Your task to perform on an android device: toggle airplane mode Image 0: 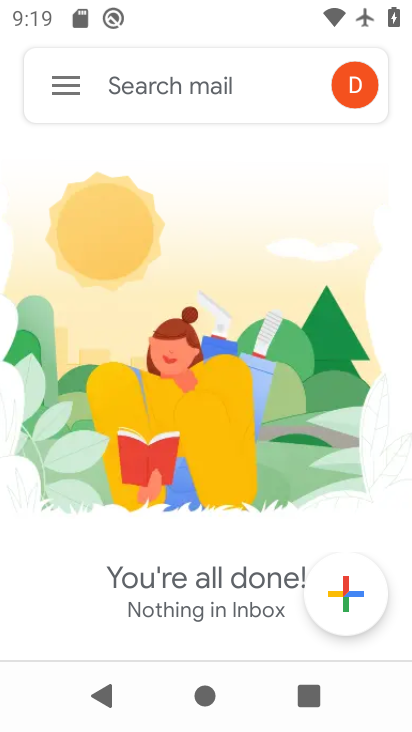
Step 0: press home button
Your task to perform on an android device: toggle airplane mode Image 1: 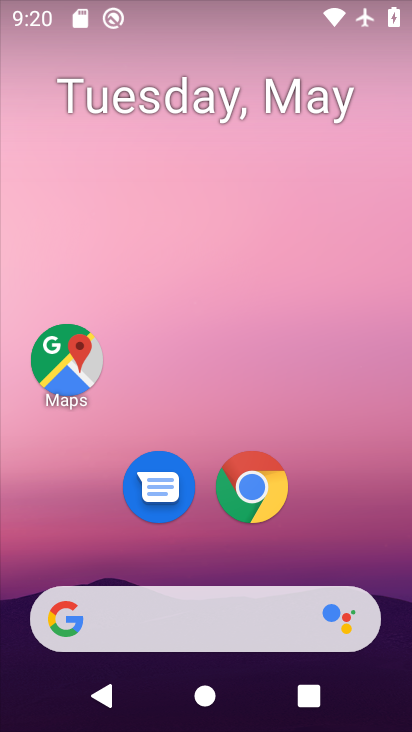
Step 1: drag from (263, 3) to (219, 499)
Your task to perform on an android device: toggle airplane mode Image 2: 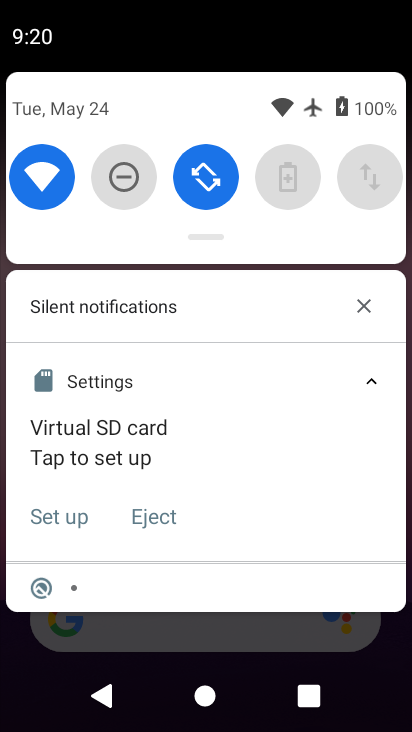
Step 2: drag from (201, 220) to (156, 639)
Your task to perform on an android device: toggle airplane mode Image 3: 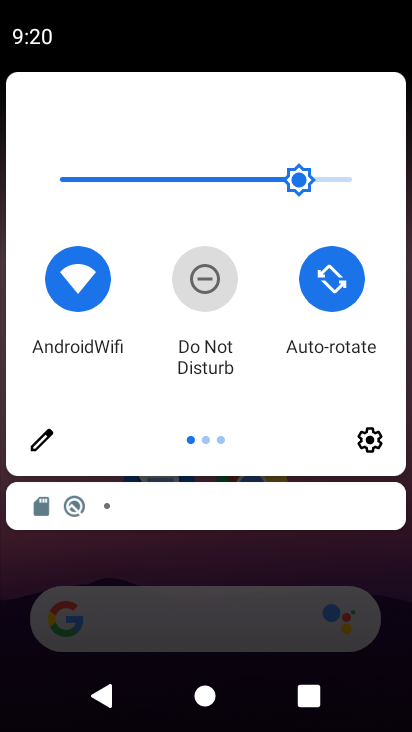
Step 3: drag from (331, 383) to (64, 391)
Your task to perform on an android device: toggle airplane mode Image 4: 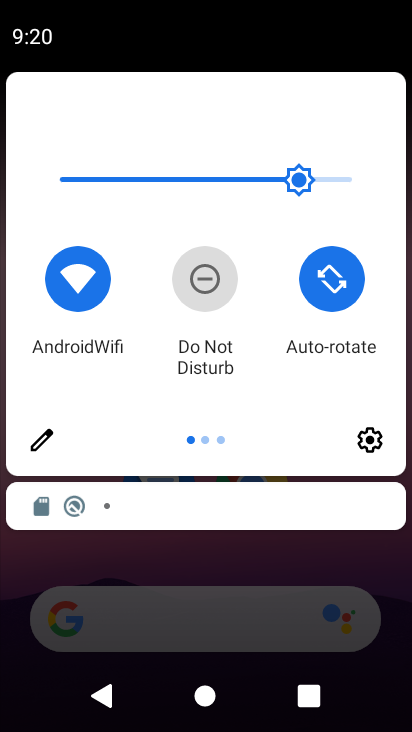
Step 4: drag from (364, 369) to (3, 394)
Your task to perform on an android device: toggle airplane mode Image 5: 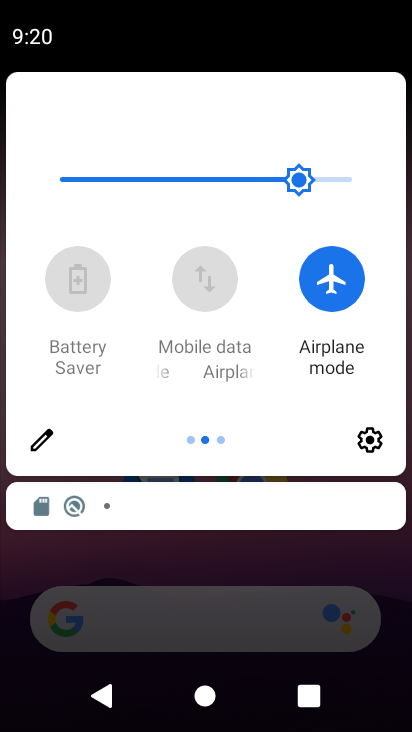
Step 5: click (328, 285)
Your task to perform on an android device: toggle airplane mode Image 6: 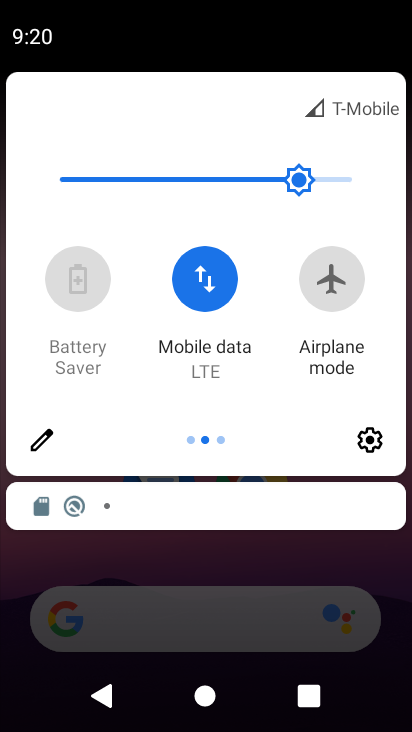
Step 6: task complete